Your task to perform on an android device: delete a single message in the gmail app Image 0: 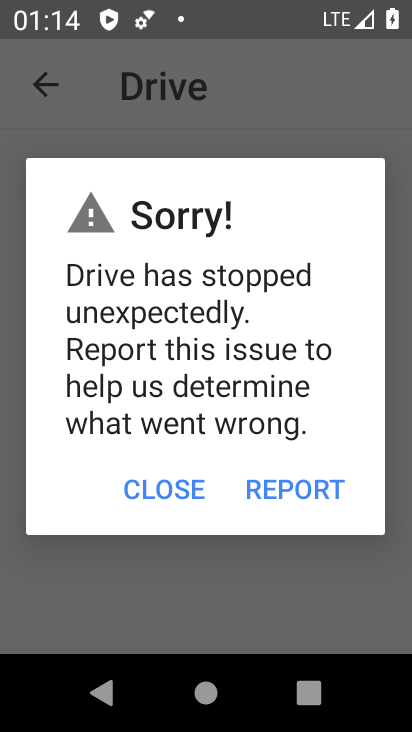
Step 0: press home button
Your task to perform on an android device: delete a single message in the gmail app Image 1: 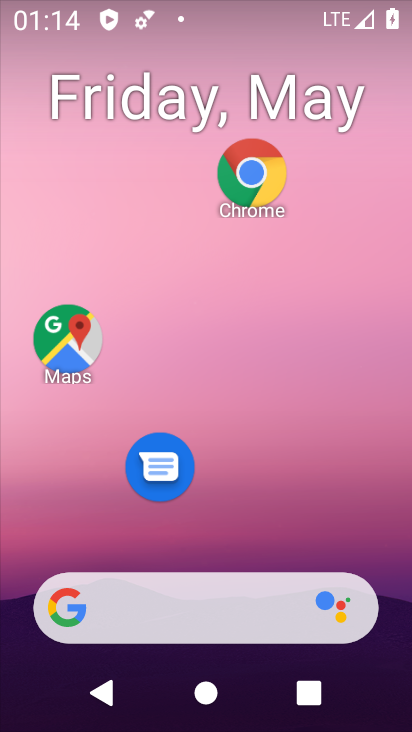
Step 1: drag from (230, 649) to (370, 160)
Your task to perform on an android device: delete a single message in the gmail app Image 2: 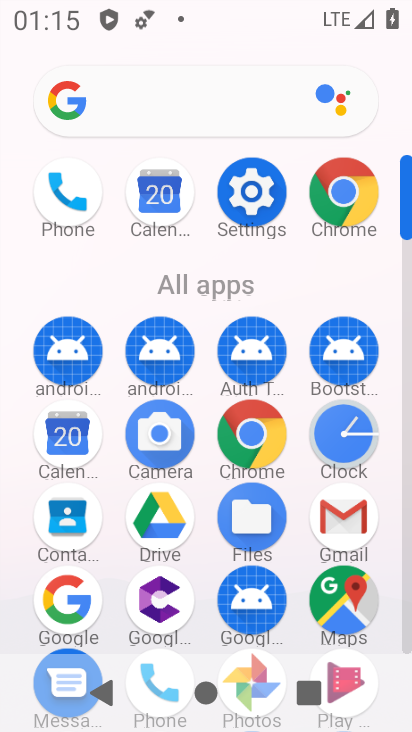
Step 2: click (336, 521)
Your task to perform on an android device: delete a single message in the gmail app Image 3: 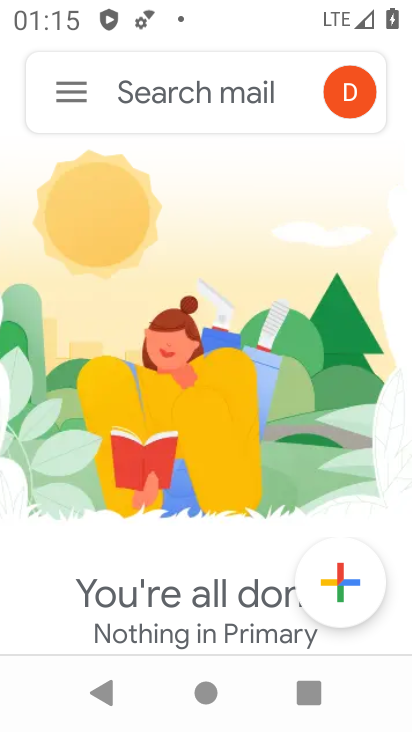
Step 3: click (66, 101)
Your task to perform on an android device: delete a single message in the gmail app Image 4: 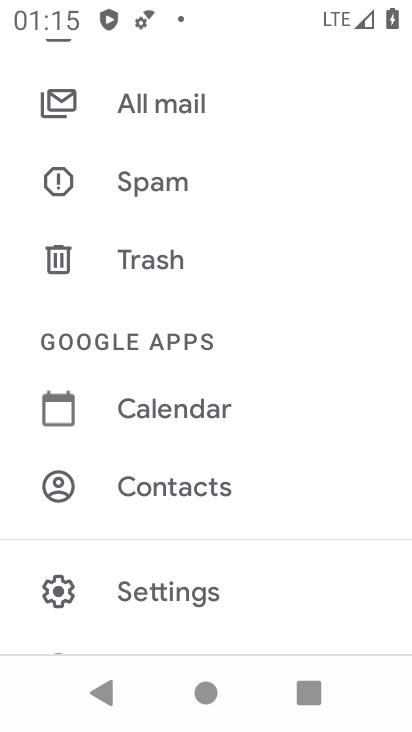
Step 4: click (156, 115)
Your task to perform on an android device: delete a single message in the gmail app Image 5: 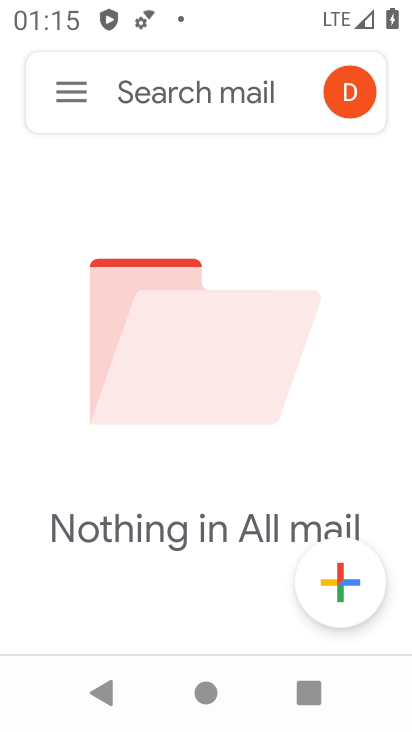
Step 5: task complete